Your task to perform on an android device: open app "Instagram" Image 0: 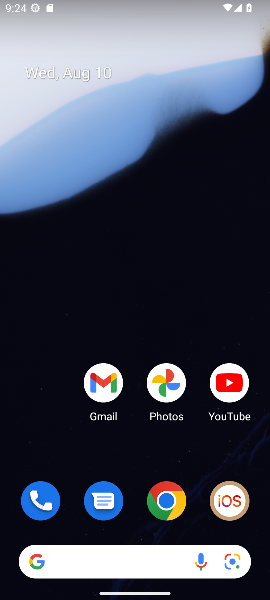
Step 0: drag from (136, 533) to (210, 133)
Your task to perform on an android device: open app "Instagram" Image 1: 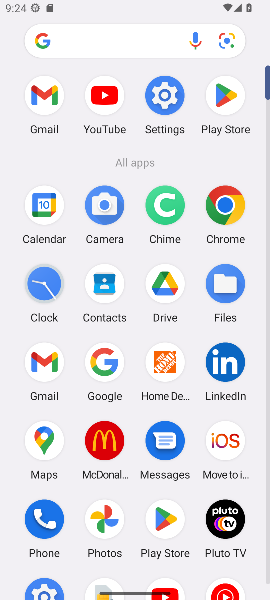
Step 1: click (265, 575)
Your task to perform on an android device: open app "Instagram" Image 2: 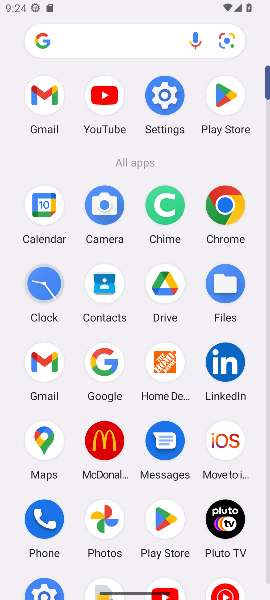
Step 2: click (268, 577)
Your task to perform on an android device: open app "Instagram" Image 3: 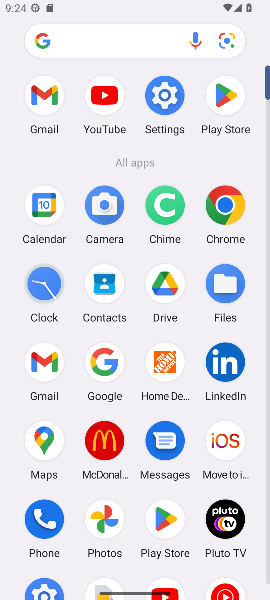
Step 3: click (268, 577)
Your task to perform on an android device: open app "Instagram" Image 4: 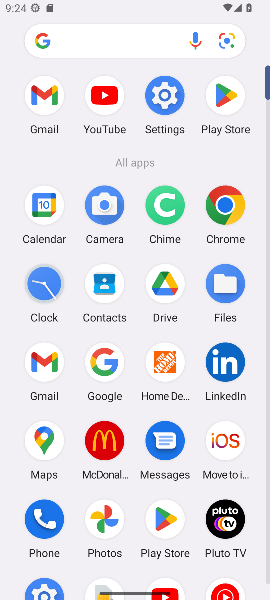
Step 4: click (268, 577)
Your task to perform on an android device: open app "Instagram" Image 5: 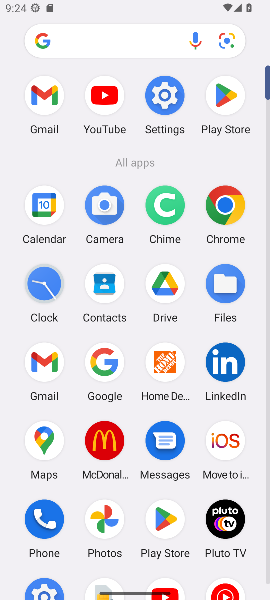
Step 5: click (268, 577)
Your task to perform on an android device: open app "Instagram" Image 6: 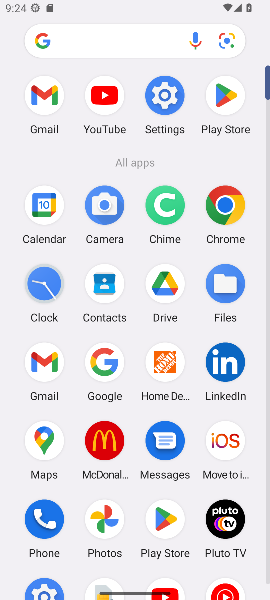
Step 6: click (268, 577)
Your task to perform on an android device: open app "Instagram" Image 7: 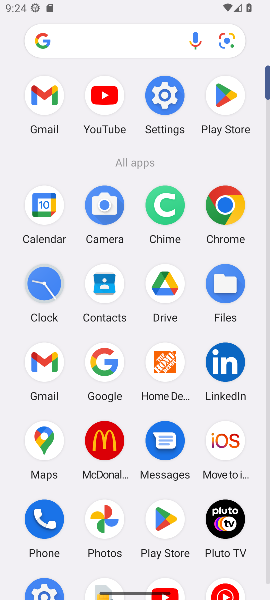
Step 7: click (268, 577)
Your task to perform on an android device: open app "Instagram" Image 8: 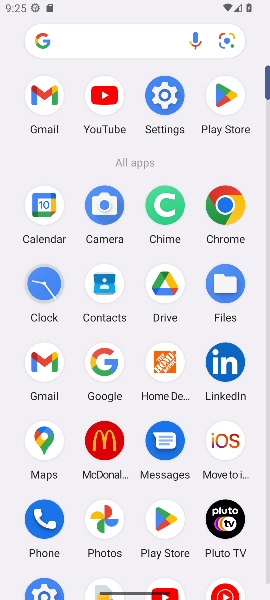
Step 8: task complete